Your task to perform on an android device: show emergency info Image 0: 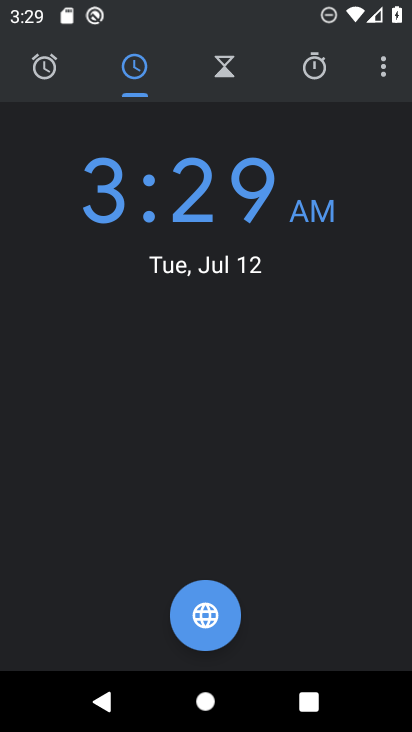
Step 0: press home button
Your task to perform on an android device: show emergency info Image 1: 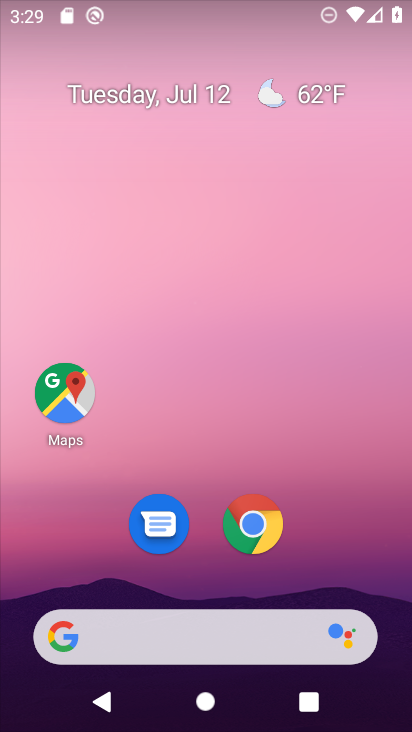
Step 1: drag from (326, 529) to (340, 46)
Your task to perform on an android device: show emergency info Image 2: 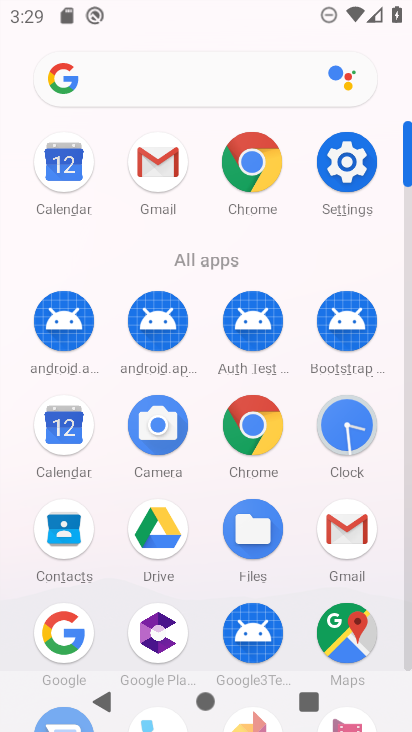
Step 2: click (351, 159)
Your task to perform on an android device: show emergency info Image 3: 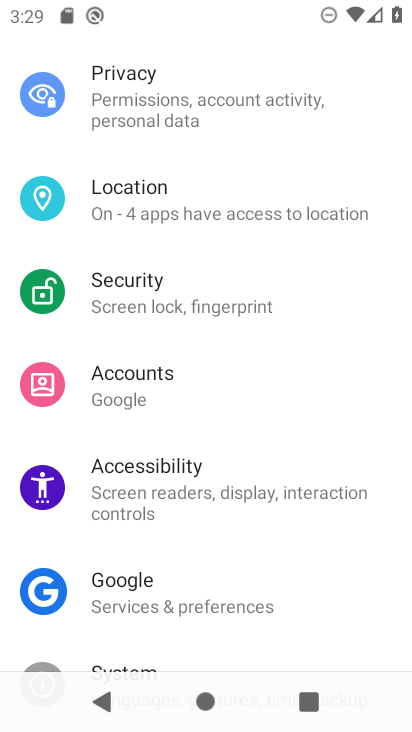
Step 3: drag from (261, 540) to (249, 215)
Your task to perform on an android device: show emergency info Image 4: 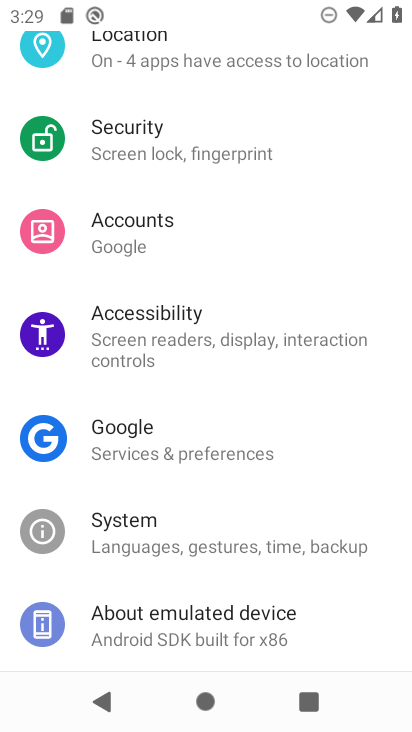
Step 4: click (190, 634)
Your task to perform on an android device: show emergency info Image 5: 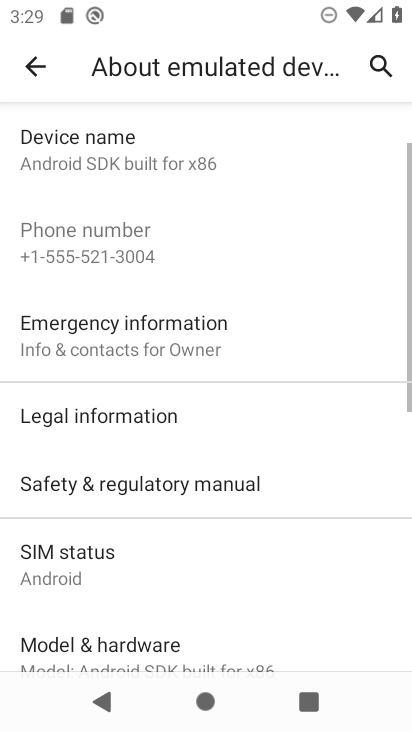
Step 5: click (185, 344)
Your task to perform on an android device: show emergency info Image 6: 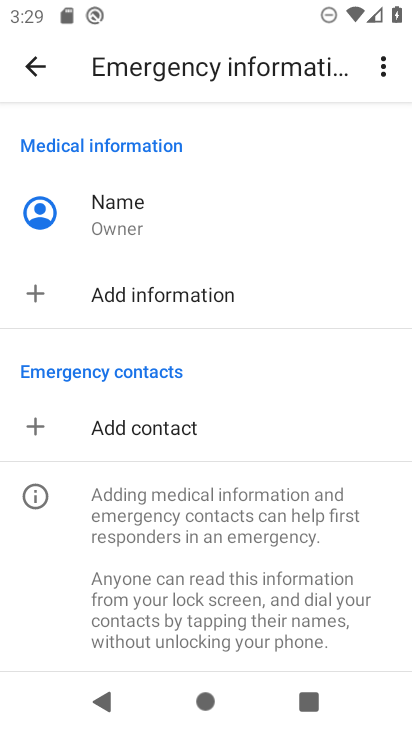
Step 6: task complete